Your task to perform on an android device: Toggle the flashlight Image 0: 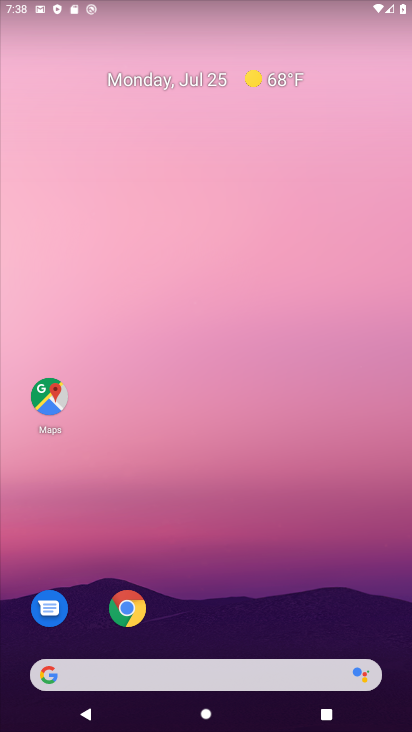
Step 0: drag from (209, 3) to (205, 543)
Your task to perform on an android device: Toggle the flashlight Image 1: 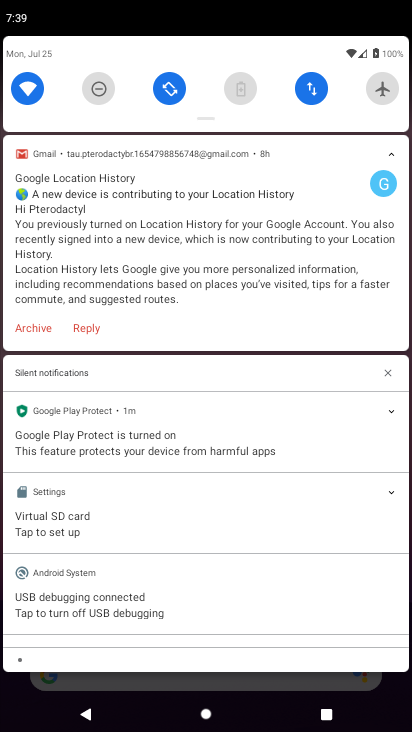
Step 1: task complete